Your task to perform on an android device: see creations saved in the google photos Image 0: 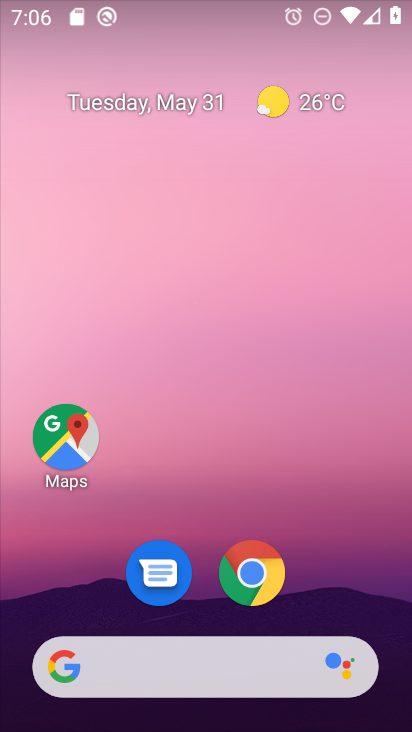
Step 0: drag from (372, 621) to (237, 21)
Your task to perform on an android device: see creations saved in the google photos Image 1: 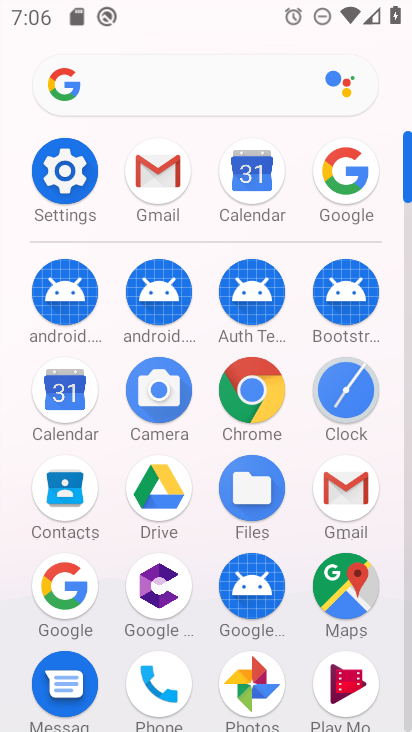
Step 1: click (254, 657)
Your task to perform on an android device: see creations saved in the google photos Image 2: 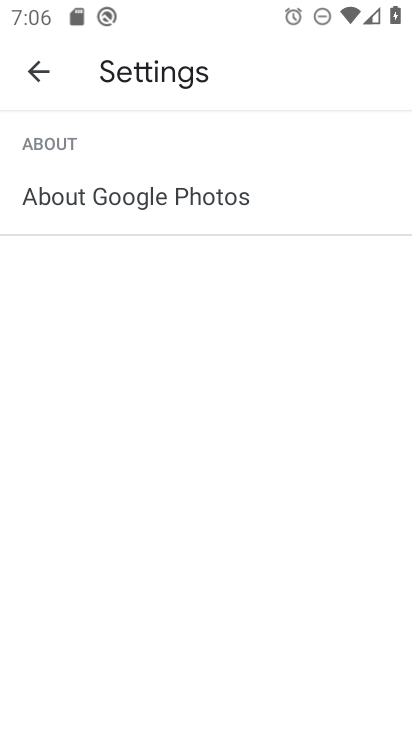
Step 2: press back button
Your task to perform on an android device: see creations saved in the google photos Image 3: 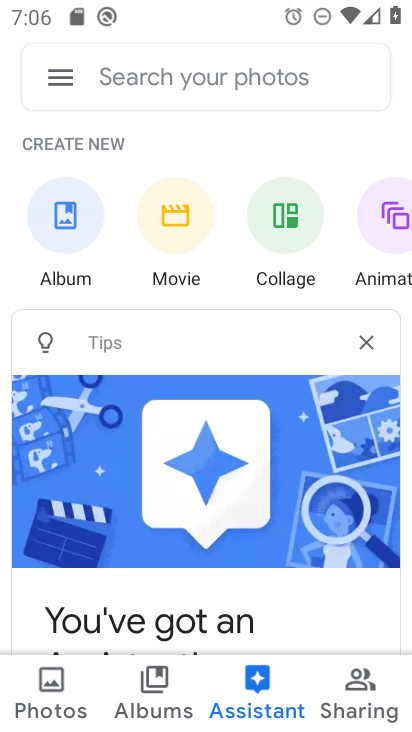
Step 3: click (132, 73)
Your task to perform on an android device: see creations saved in the google photos Image 4: 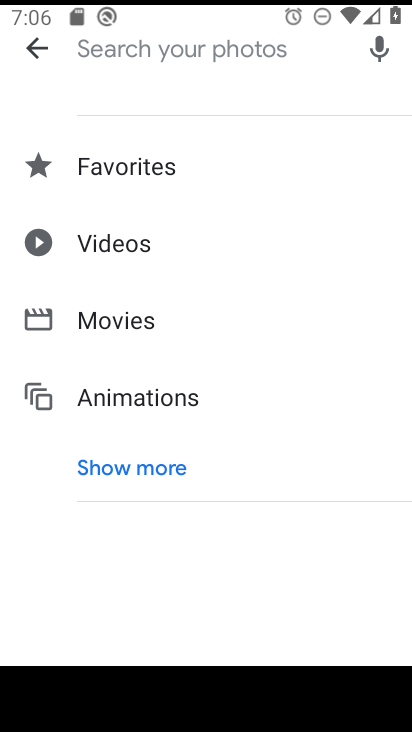
Step 4: click (140, 469)
Your task to perform on an android device: see creations saved in the google photos Image 5: 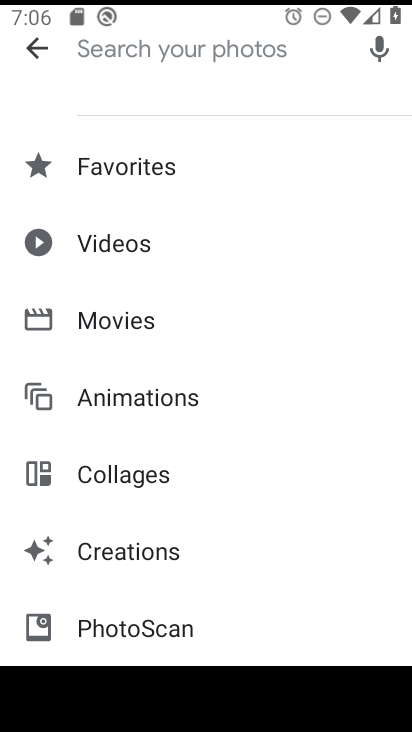
Step 5: click (111, 551)
Your task to perform on an android device: see creations saved in the google photos Image 6: 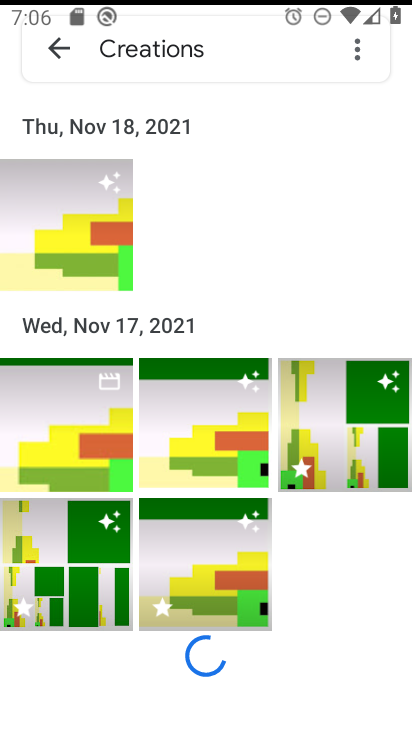
Step 6: task complete